Your task to perform on an android device: read, delete, or share a saved page in the chrome app Image 0: 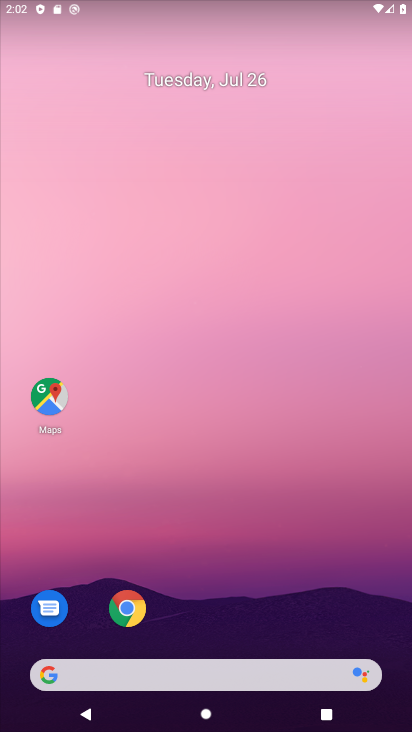
Step 0: drag from (135, 589) to (170, 426)
Your task to perform on an android device: read, delete, or share a saved page in the chrome app Image 1: 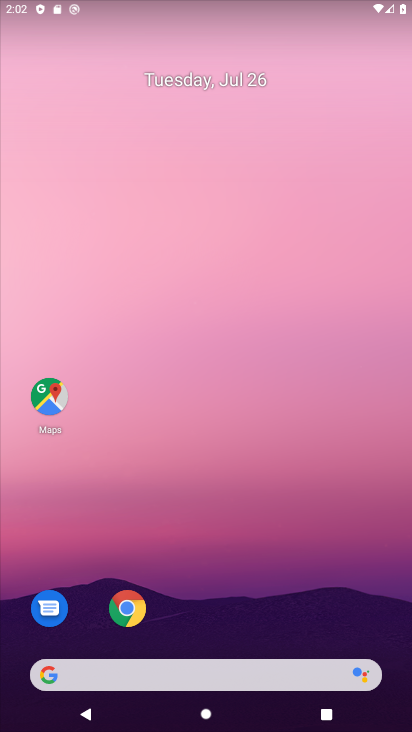
Step 1: click (127, 617)
Your task to perform on an android device: read, delete, or share a saved page in the chrome app Image 2: 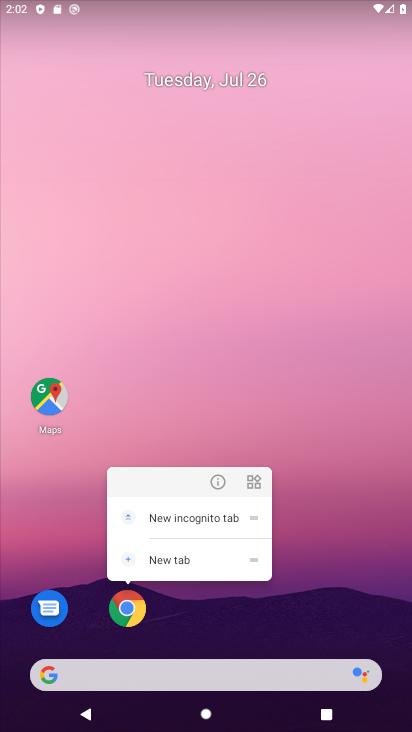
Step 2: click (362, 584)
Your task to perform on an android device: read, delete, or share a saved page in the chrome app Image 3: 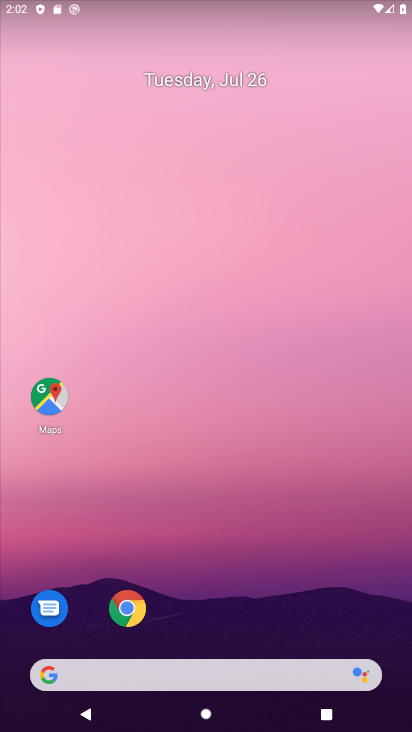
Step 3: task complete